Your task to perform on an android device: Go to Google maps Image 0: 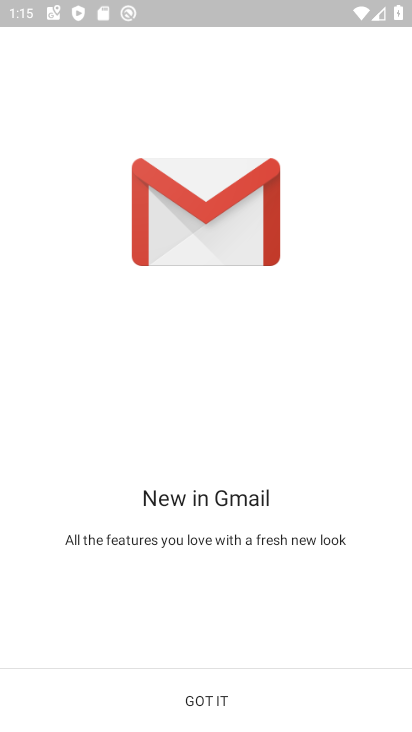
Step 0: press home button
Your task to perform on an android device: Go to Google maps Image 1: 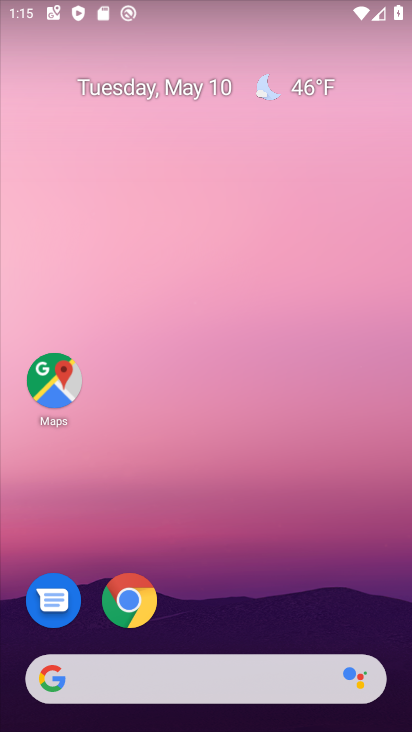
Step 1: click (59, 384)
Your task to perform on an android device: Go to Google maps Image 2: 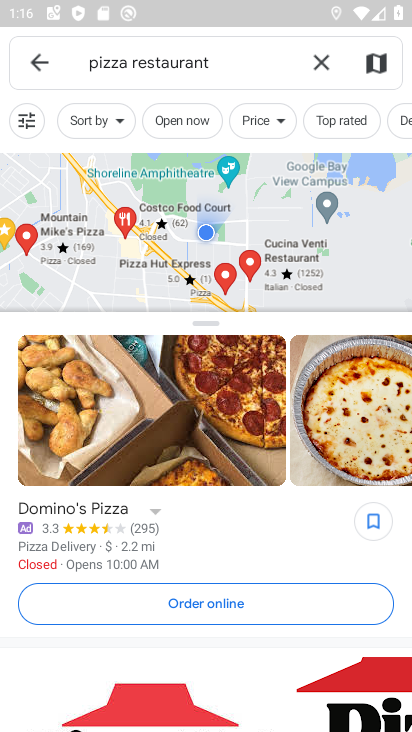
Step 2: task complete